Your task to perform on an android device: check battery use Image 0: 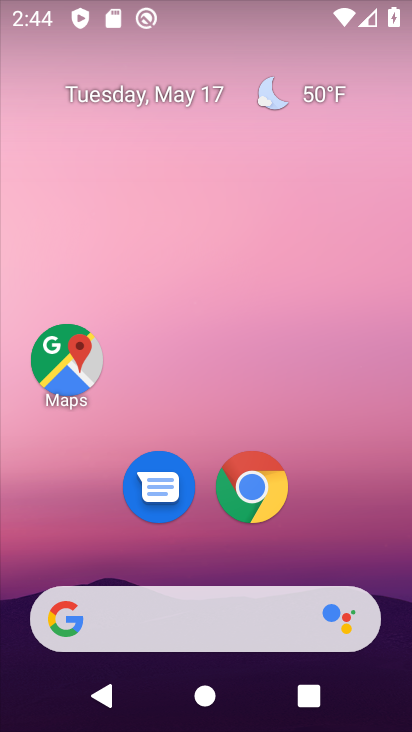
Step 0: drag from (152, 602) to (216, 193)
Your task to perform on an android device: check battery use Image 1: 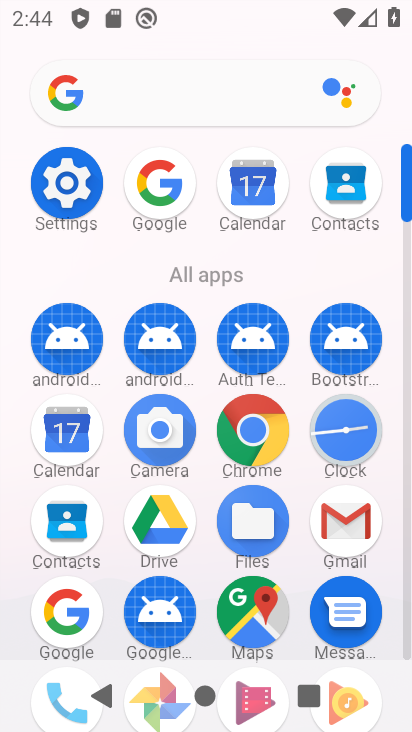
Step 1: drag from (146, 560) to (229, 310)
Your task to perform on an android device: check battery use Image 2: 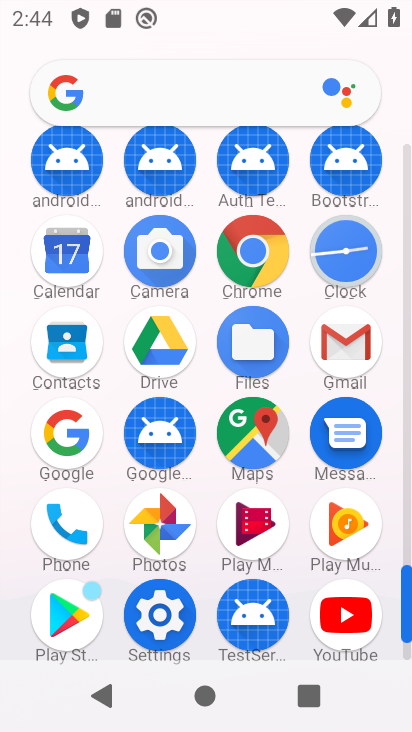
Step 2: click (155, 636)
Your task to perform on an android device: check battery use Image 3: 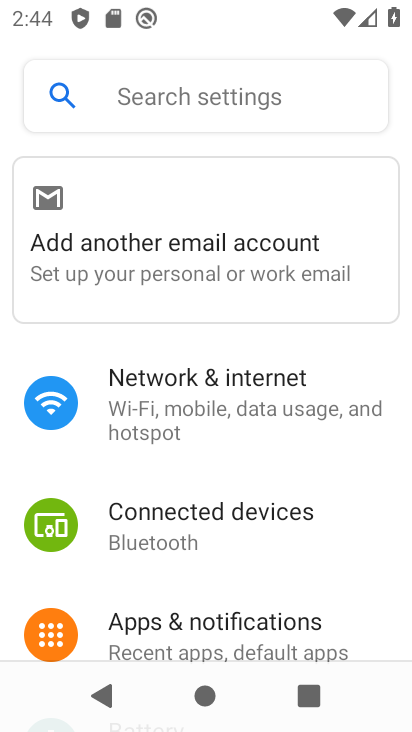
Step 3: drag from (197, 608) to (287, 354)
Your task to perform on an android device: check battery use Image 4: 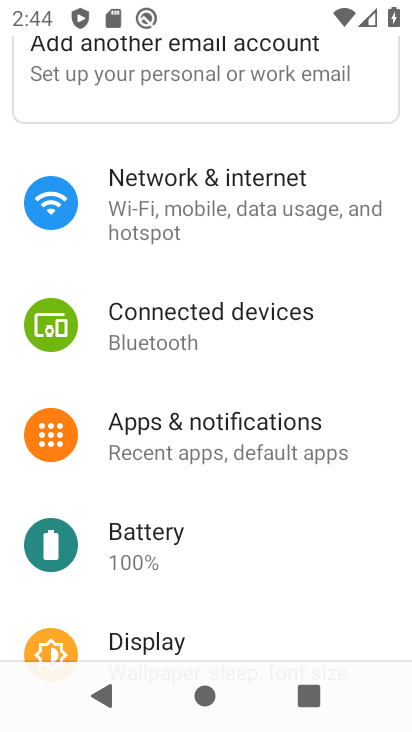
Step 4: click (214, 552)
Your task to perform on an android device: check battery use Image 5: 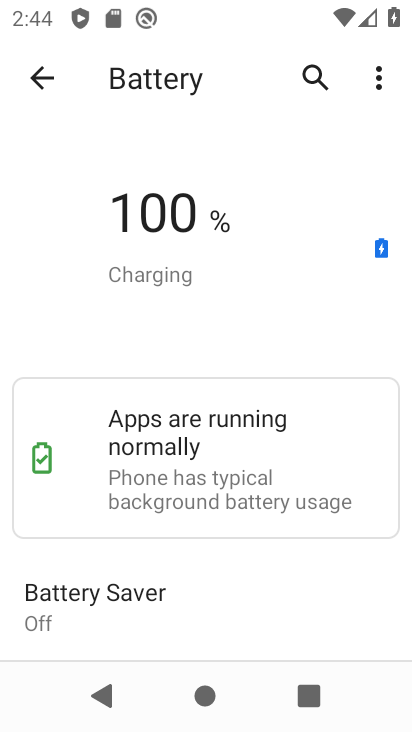
Step 5: click (381, 72)
Your task to perform on an android device: check battery use Image 6: 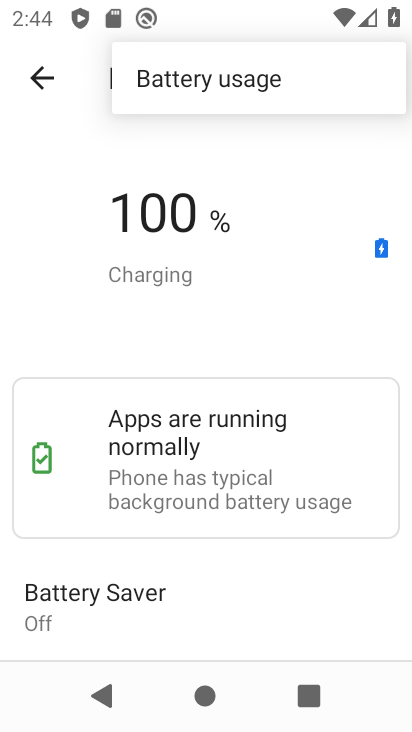
Step 6: click (350, 85)
Your task to perform on an android device: check battery use Image 7: 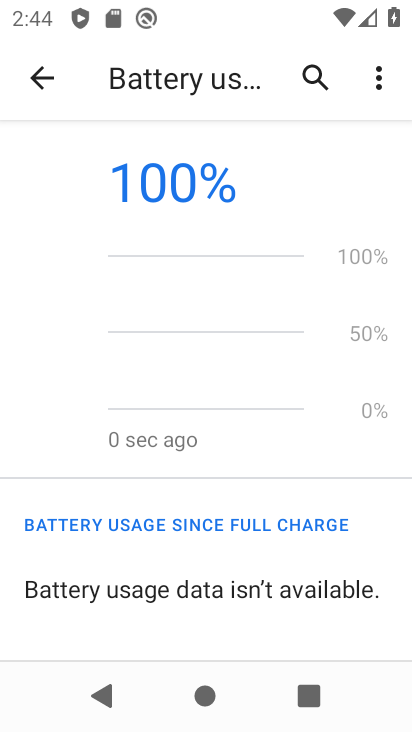
Step 7: task complete